Your task to perform on an android device: turn on sleep mode Image 0: 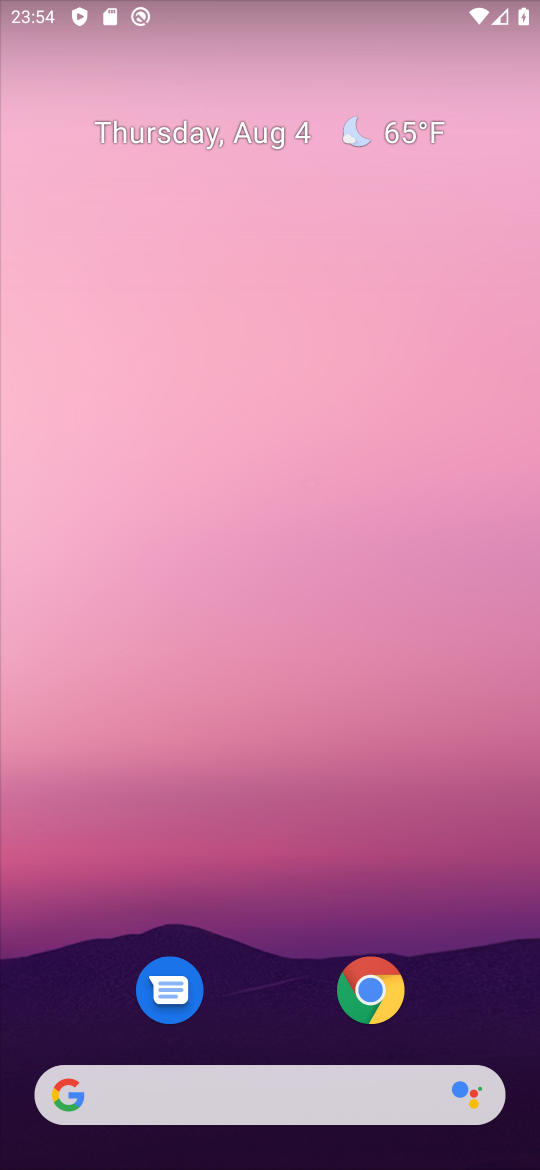
Step 0: drag from (487, 1012) to (343, 196)
Your task to perform on an android device: turn on sleep mode Image 1: 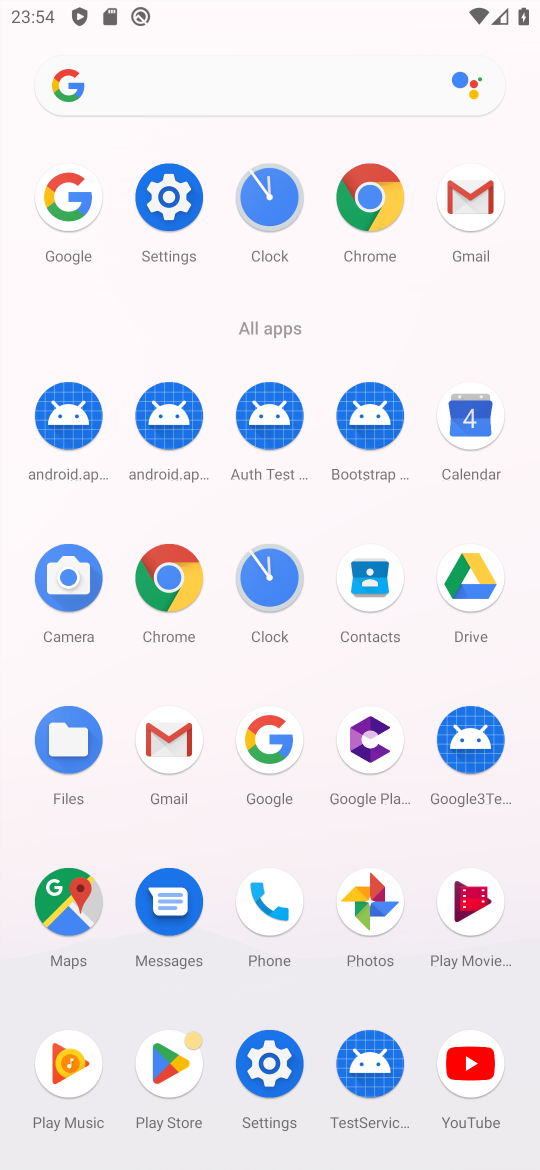
Step 1: click (175, 196)
Your task to perform on an android device: turn on sleep mode Image 2: 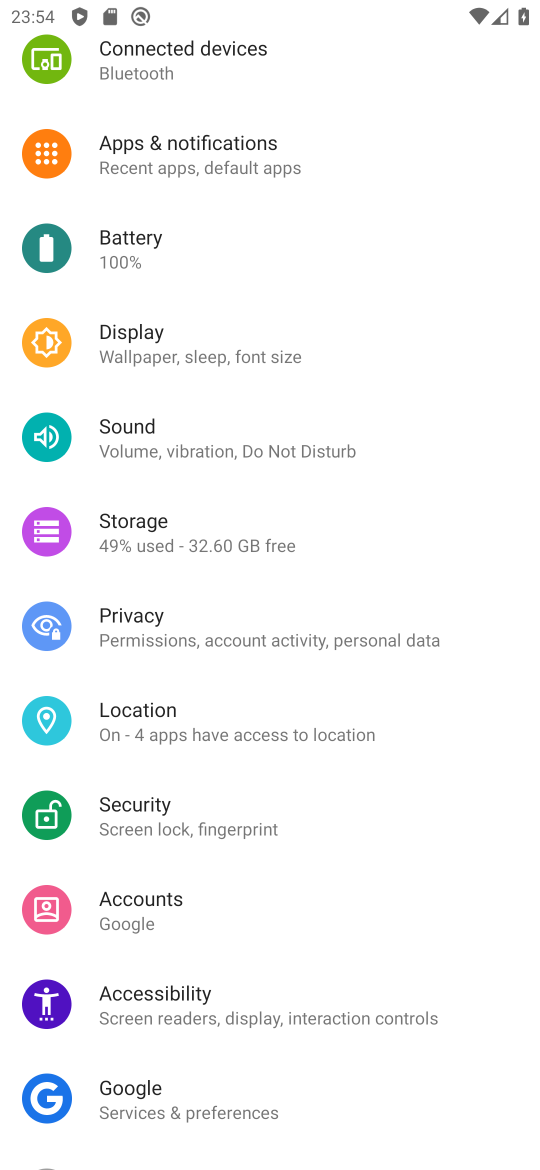
Step 2: click (212, 363)
Your task to perform on an android device: turn on sleep mode Image 3: 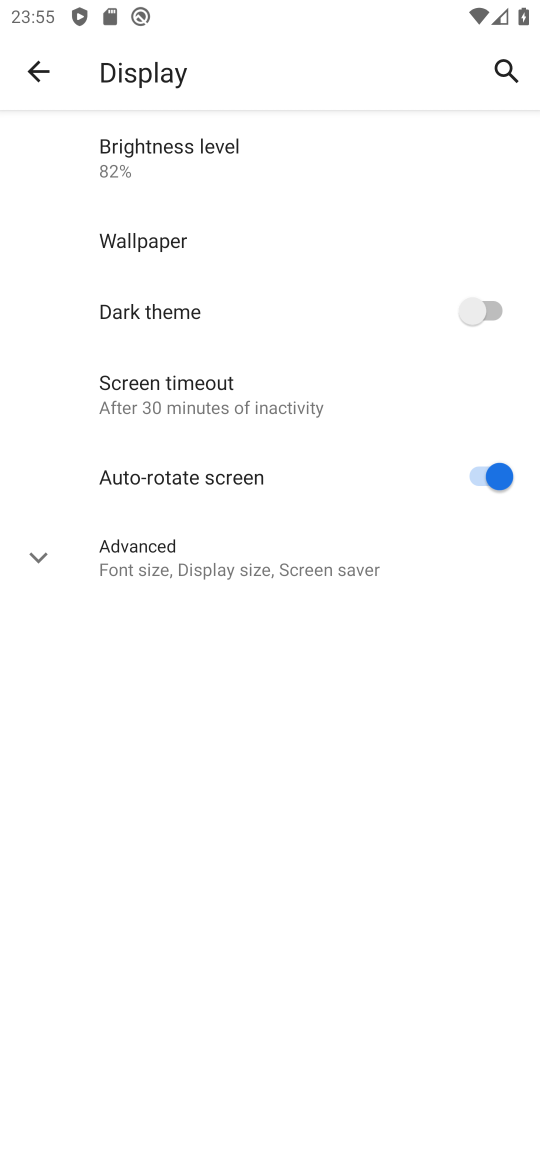
Step 3: click (383, 553)
Your task to perform on an android device: turn on sleep mode Image 4: 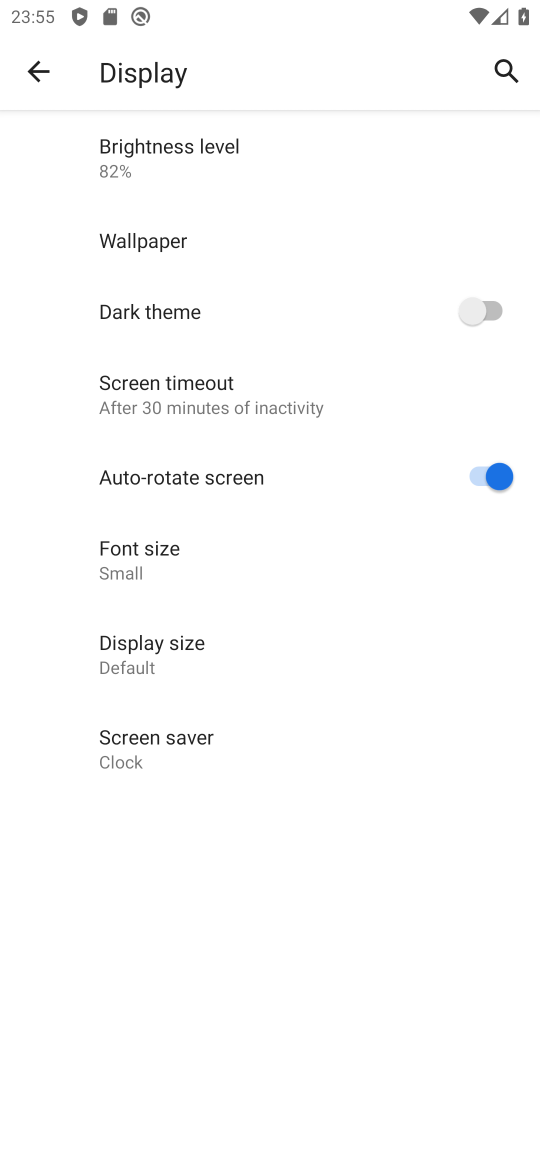
Step 4: task complete